Your task to perform on an android device: Search for macbook on ebay.com, select the first entry, and add it to the cart. Image 0: 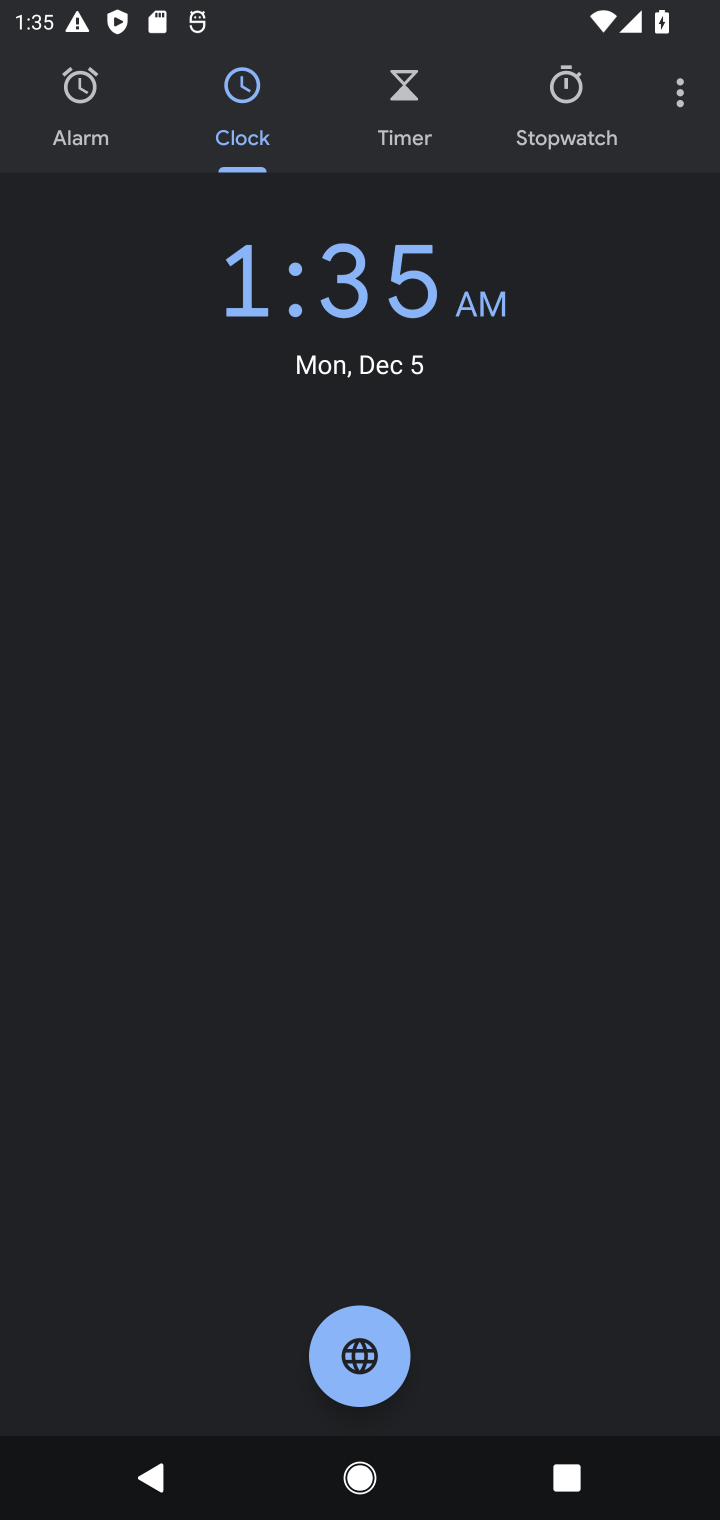
Step 0: press home button
Your task to perform on an android device: Search for macbook on ebay.com, select the first entry, and add it to the cart. Image 1: 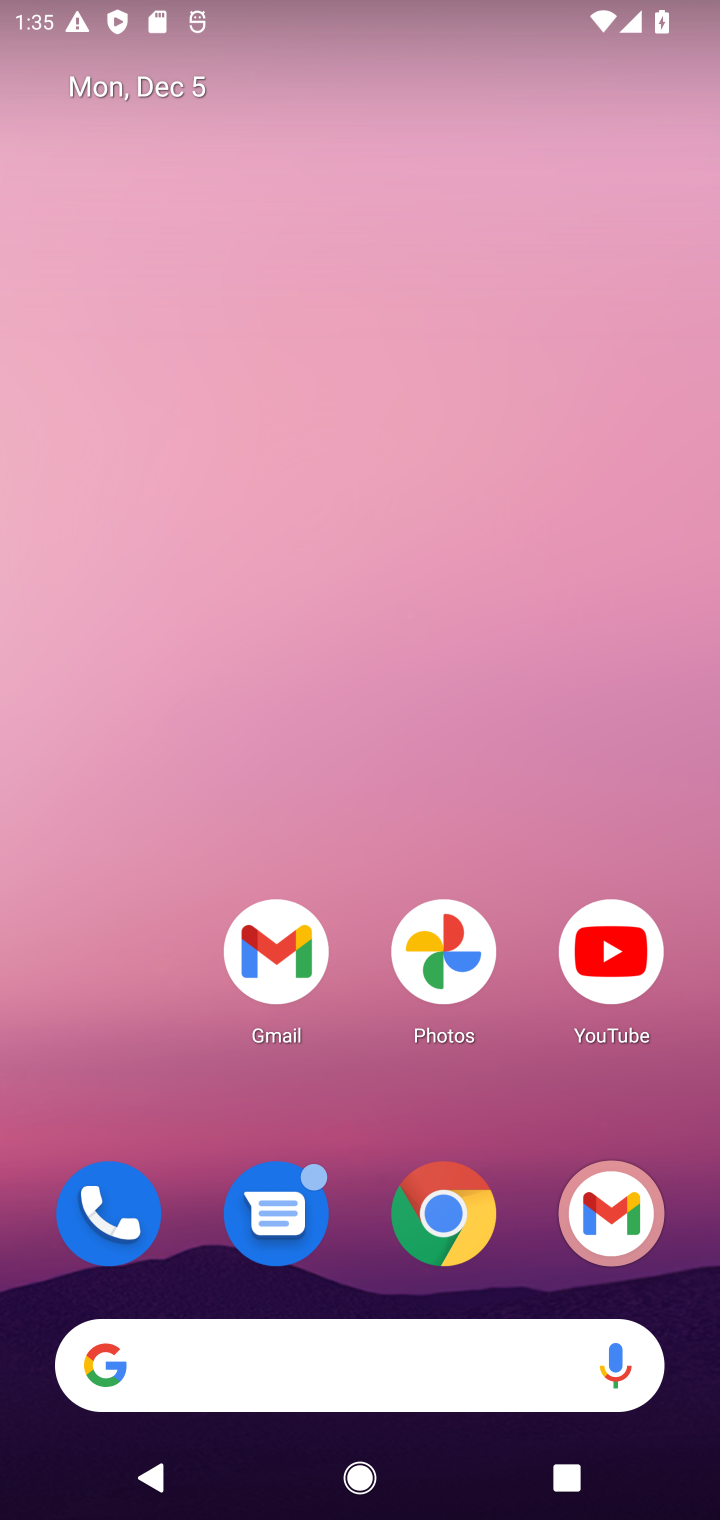
Step 1: click (453, 1226)
Your task to perform on an android device: Search for macbook on ebay.com, select the first entry, and add it to the cart. Image 2: 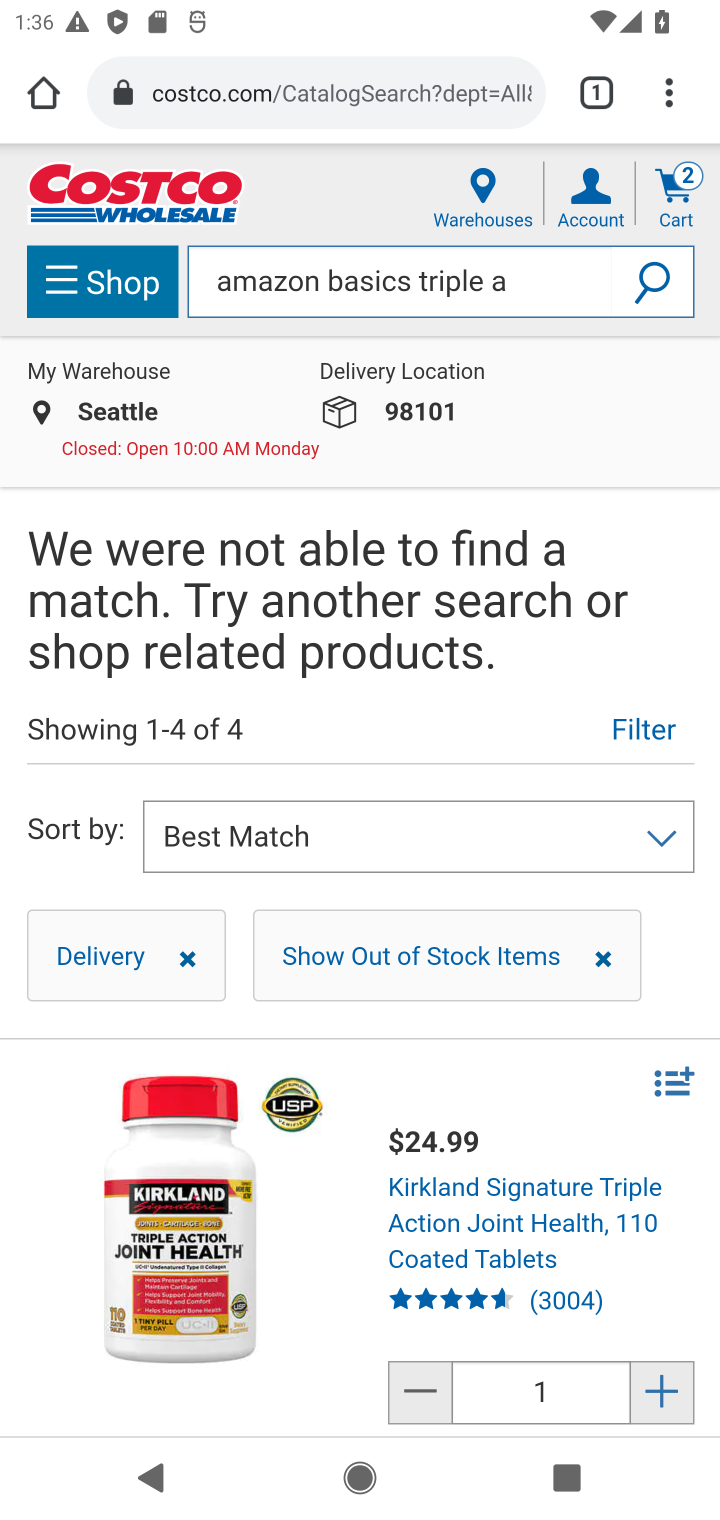
Step 2: click (341, 86)
Your task to perform on an android device: Search for macbook on ebay.com, select the first entry, and add it to the cart. Image 3: 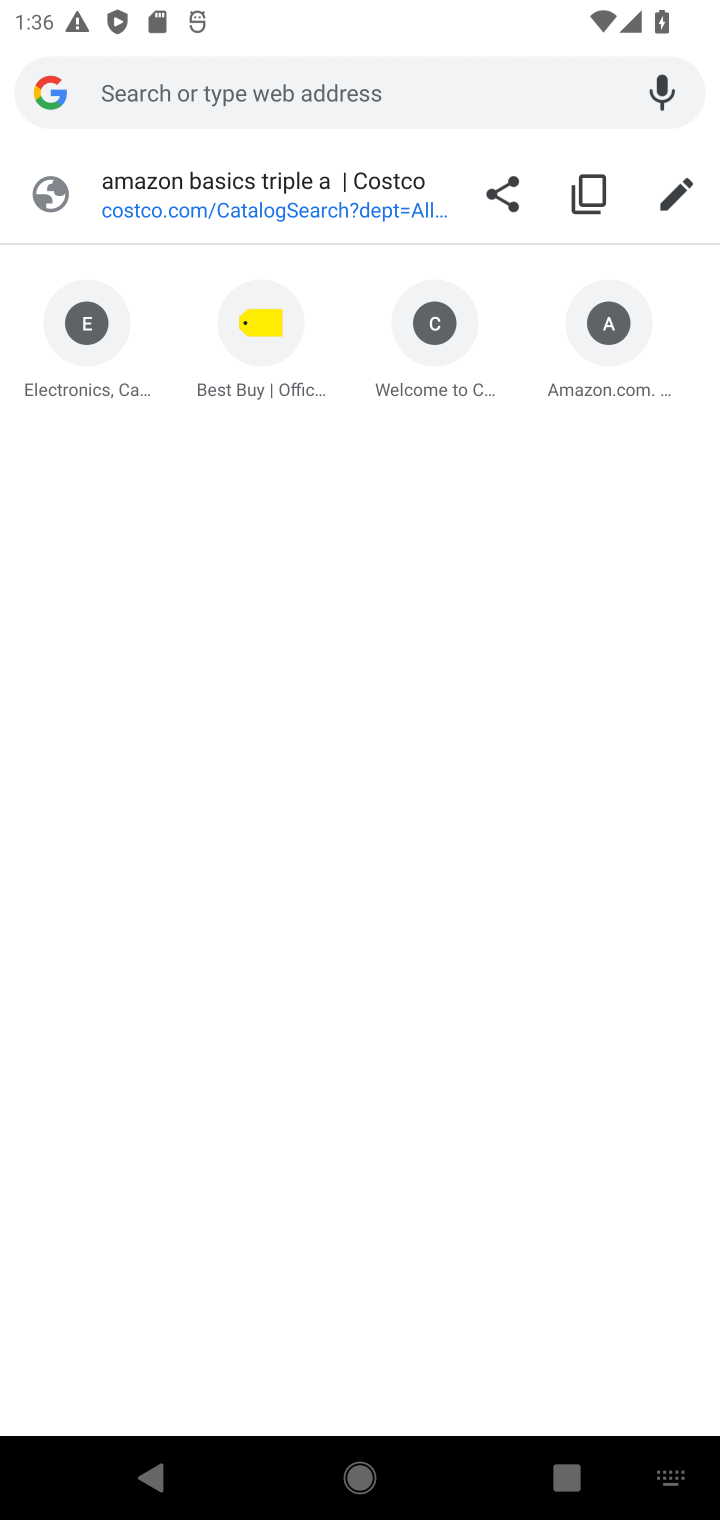
Step 3: type "ebay.com"
Your task to perform on an android device: Search for macbook on ebay.com, select the first entry, and add it to the cart. Image 4: 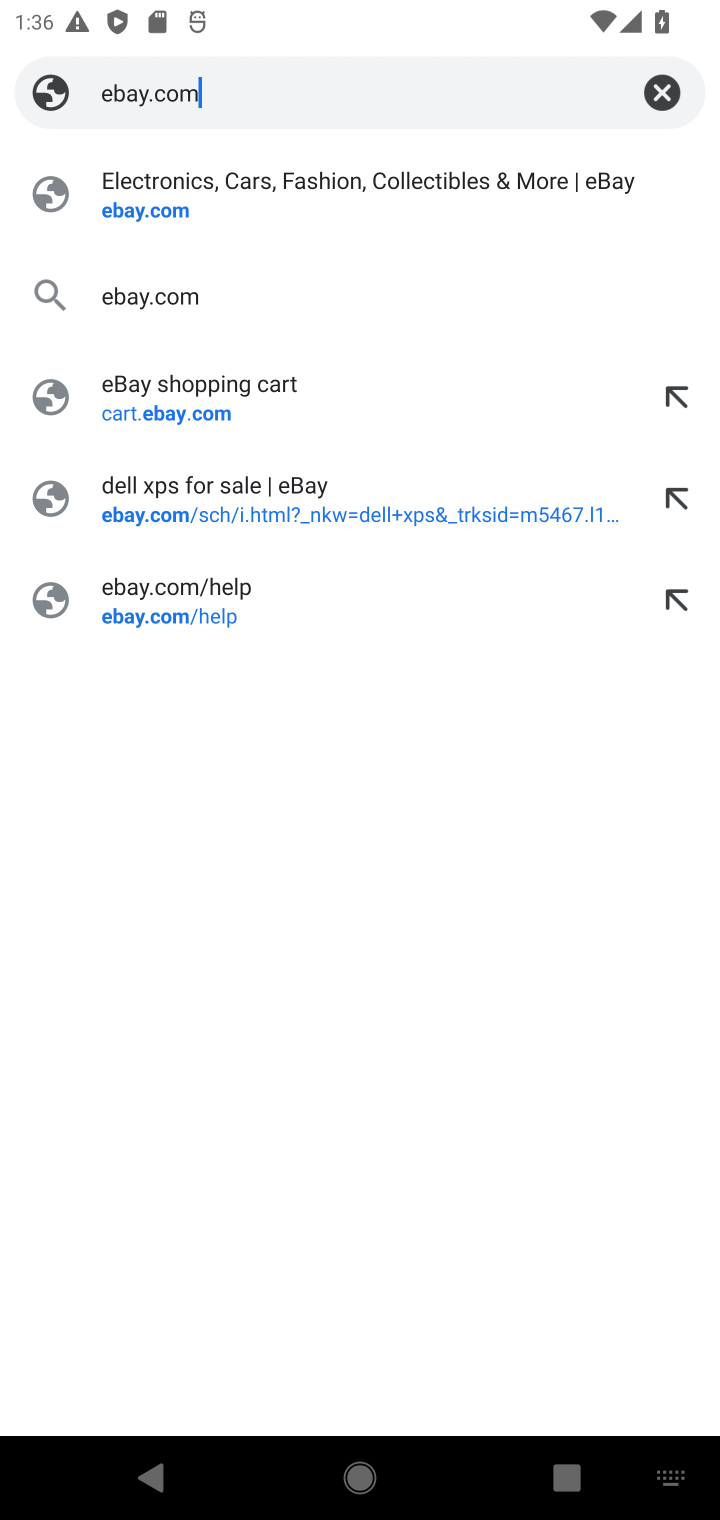
Step 4: click (136, 202)
Your task to perform on an android device: Search for macbook on ebay.com, select the first entry, and add it to the cart. Image 5: 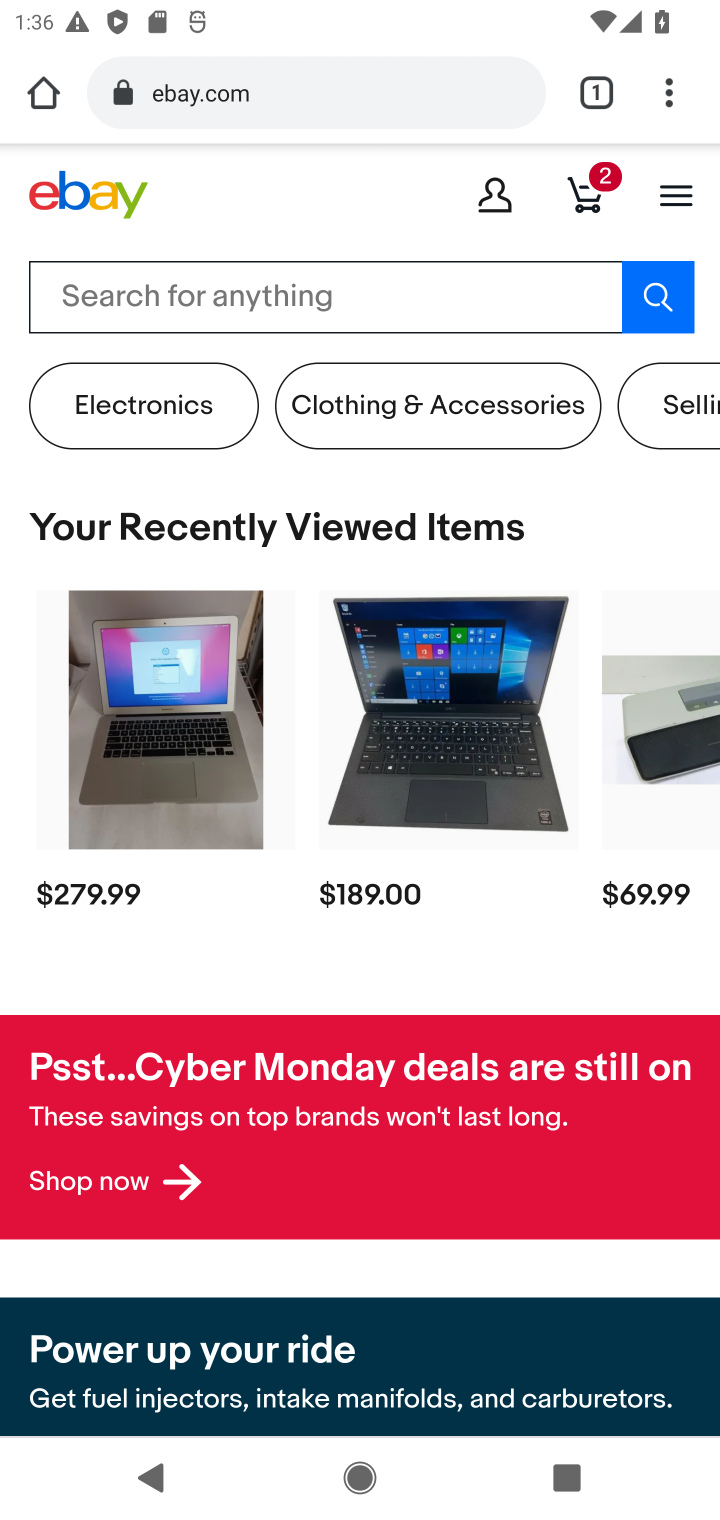
Step 5: click (204, 300)
Your task to perform on an android device: Search for macbook on ebay.com, select the first entry, and add it to the cart. Image 6: 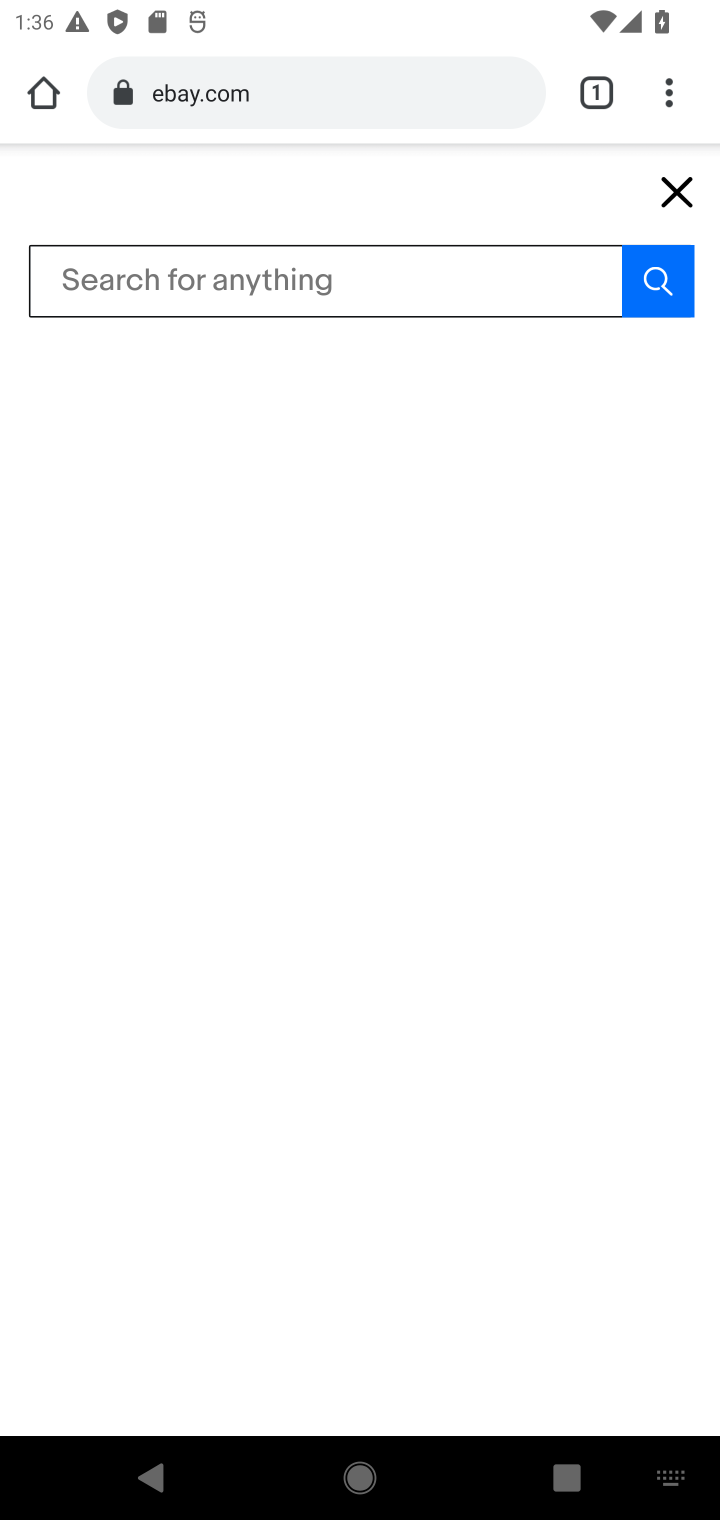
Step 6: type "macbook "
Your task to perform on an android device: Search for macbook on ebay.com, select the first entry, and add it to the cart. Image 7: 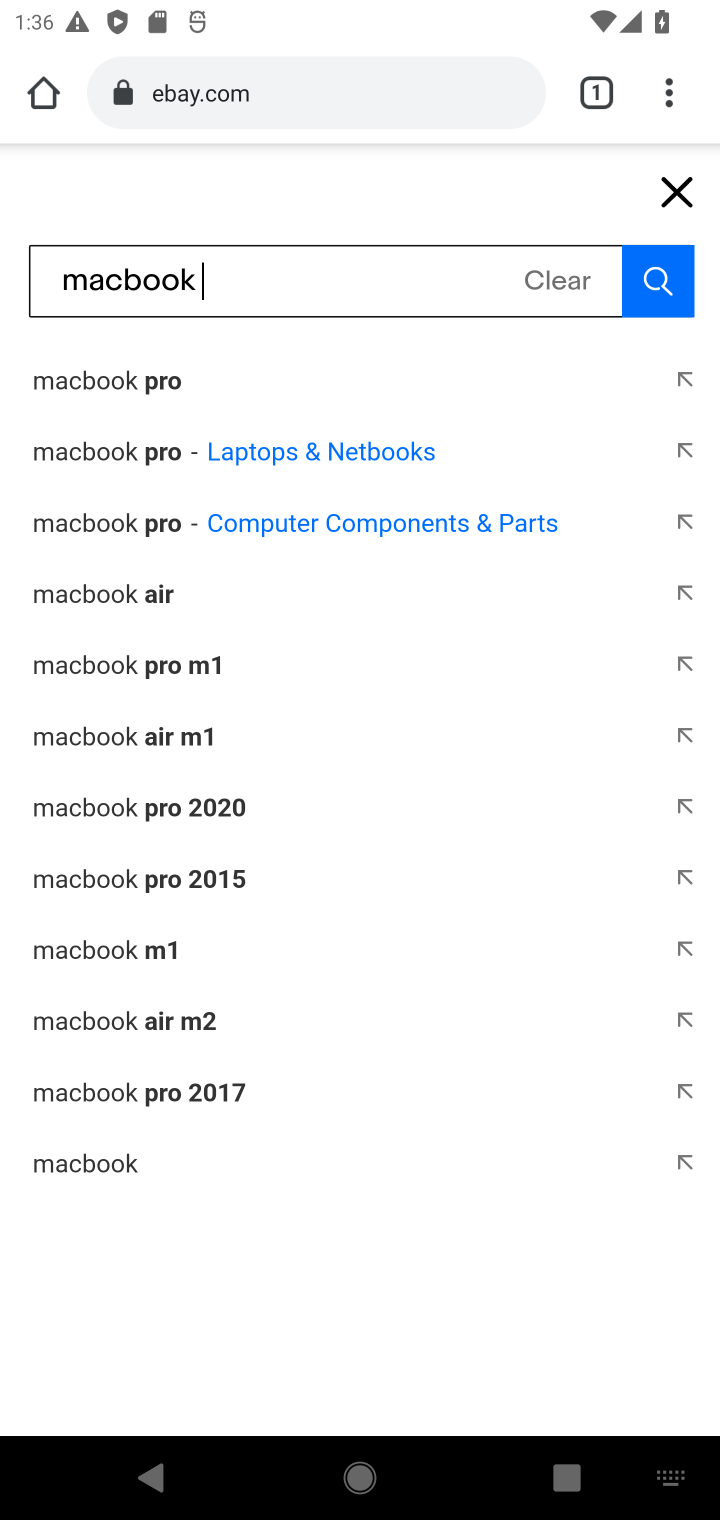
Step 7: click (113, 1168)
Your task to perform on an android device: Search for macbook on ebay.com, select the first entry, and add it to the cart. Image 8: 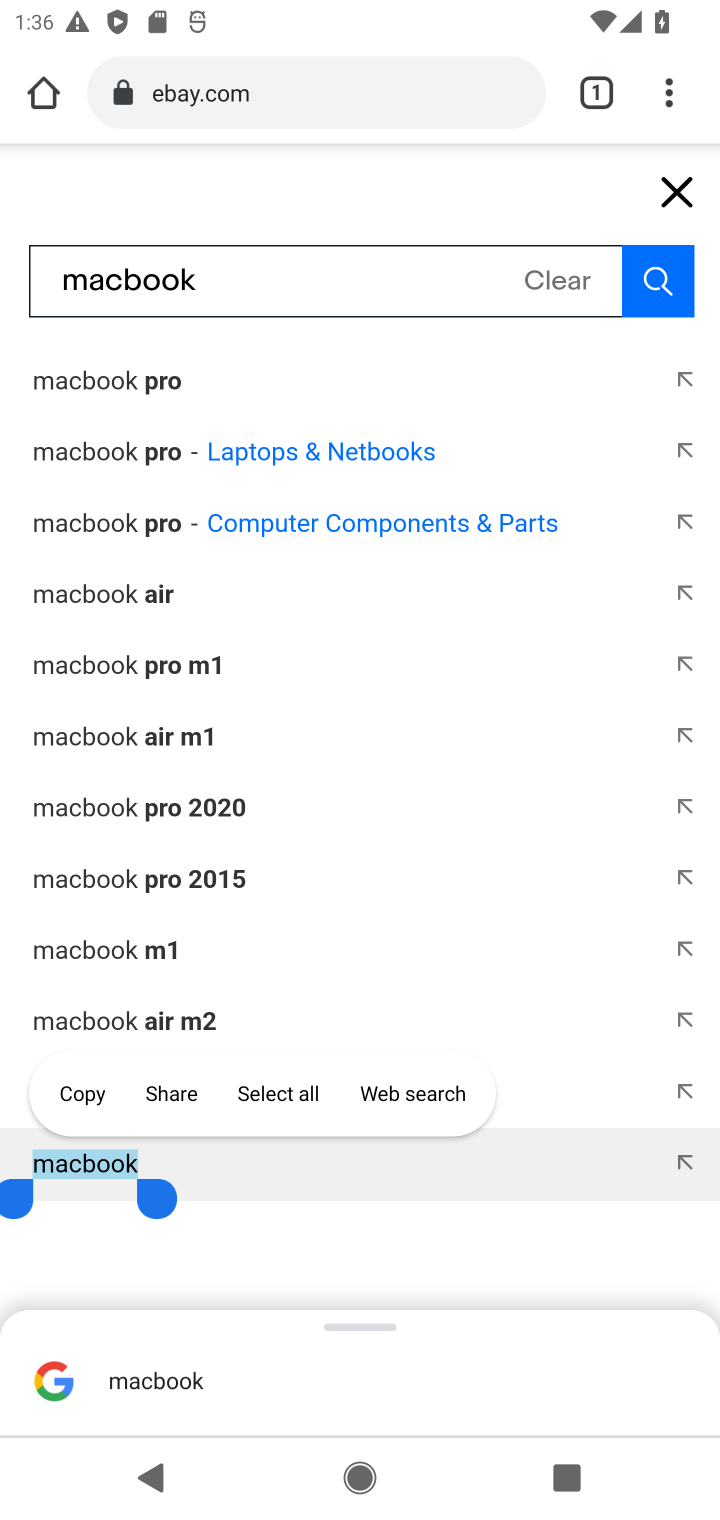
Step 8: click (113, 1168)
Your task to perform on an android device: Search for macbook on ebay.com, select the first entry, and add it to the cart. Image 9: 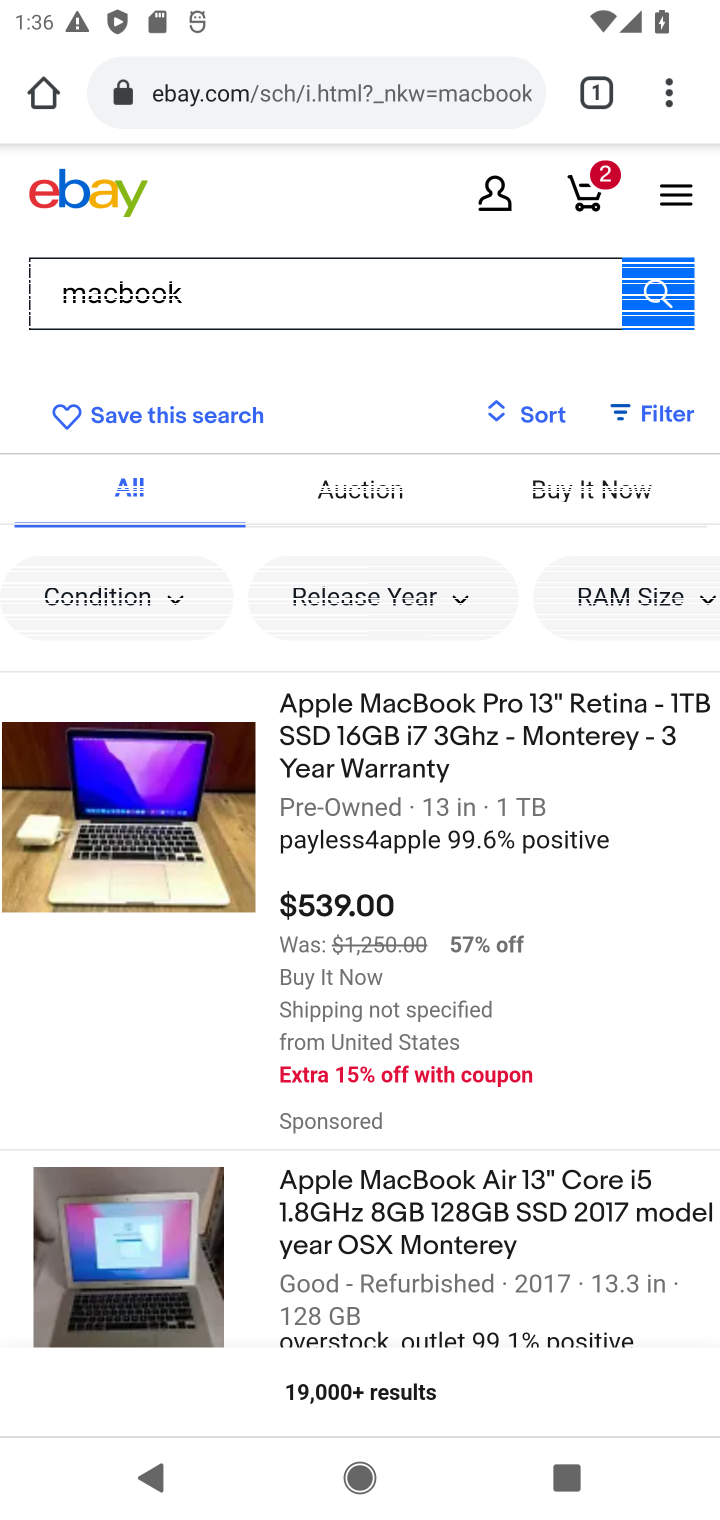
Step 9: click (458, 729)
Your task to perform on an android device: Search for macbook on ebay.com, select the first entry, and add it to the cart. Image 10: 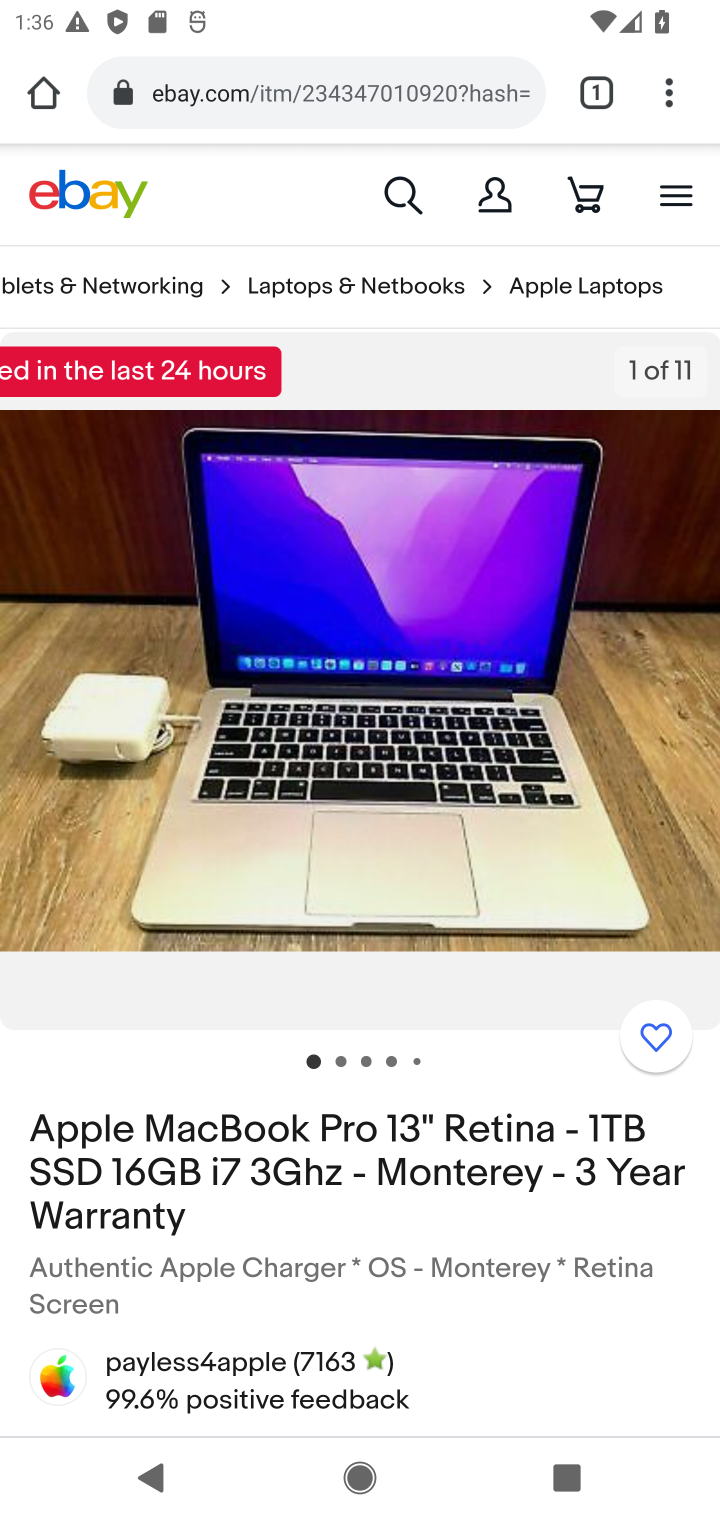
Step 10: drag from (369, 1033) to (369, 548)
Your task to perform on an android device: Search for macbook on ebay.com, select the first entry, and add it to the cart. Image 11: 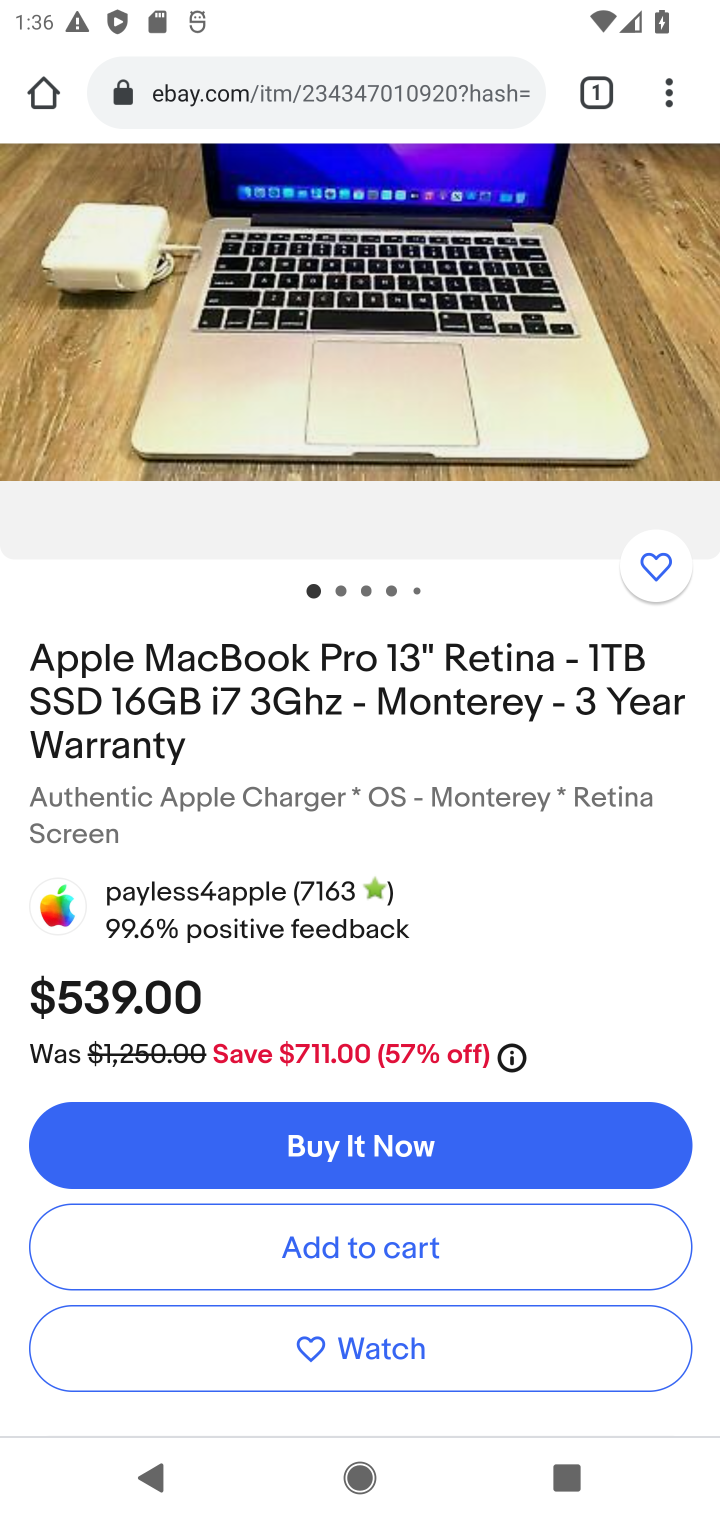
Step 11: click (337, 1251)
Your task to perform on an android device: Search for macbook on ebay.com, select the first entry, and add it to the cart. Image 12: 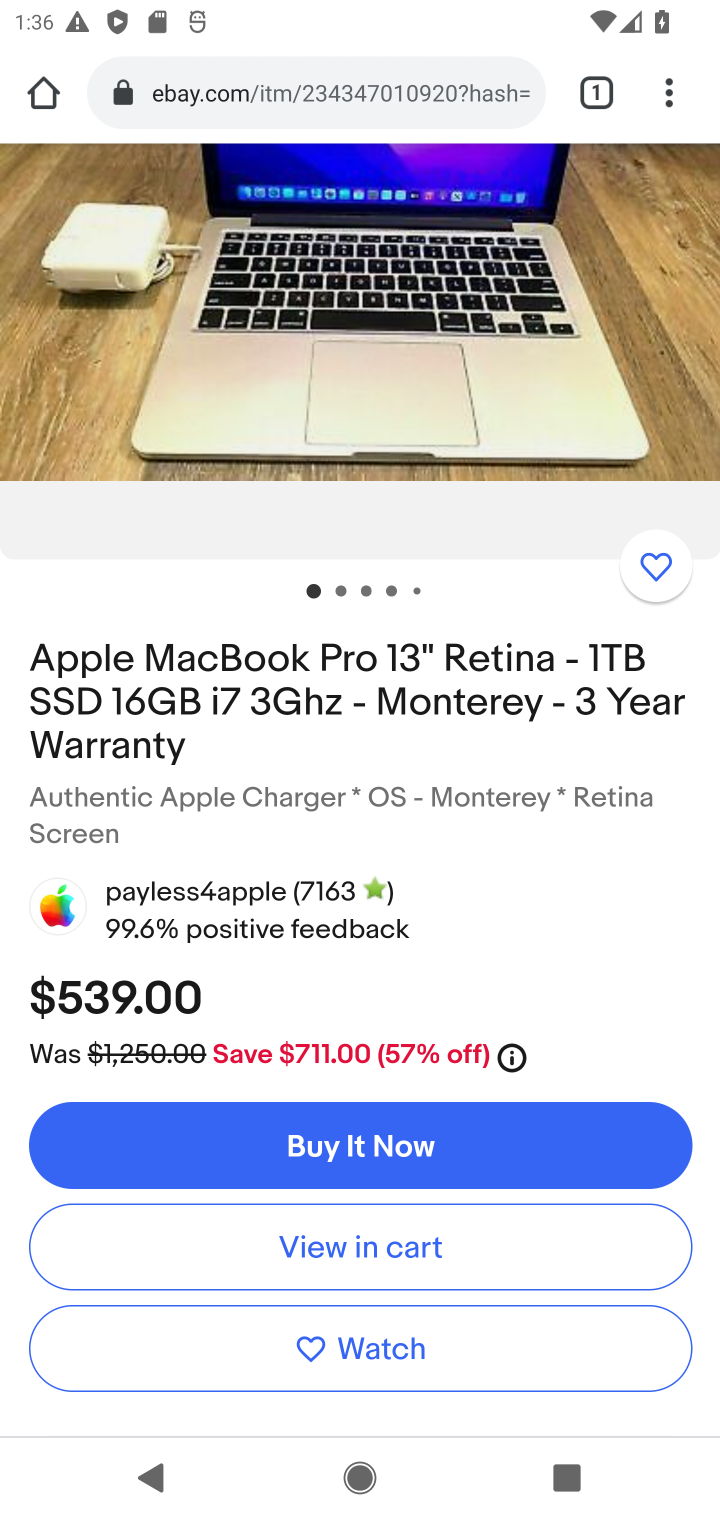
Step 12: task complete